Your task to perform on an android device: Open Youtube and go to "Your channel" Image 0: 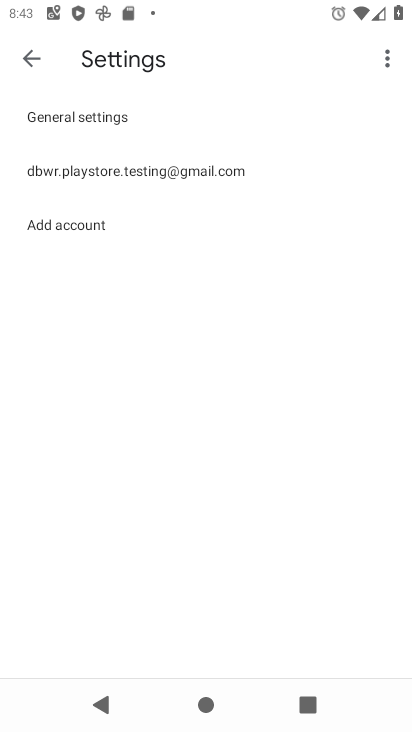
Step 0: press home button
Your task to perform on an android device: Open Youtube and go to "Your channel" Image 1: 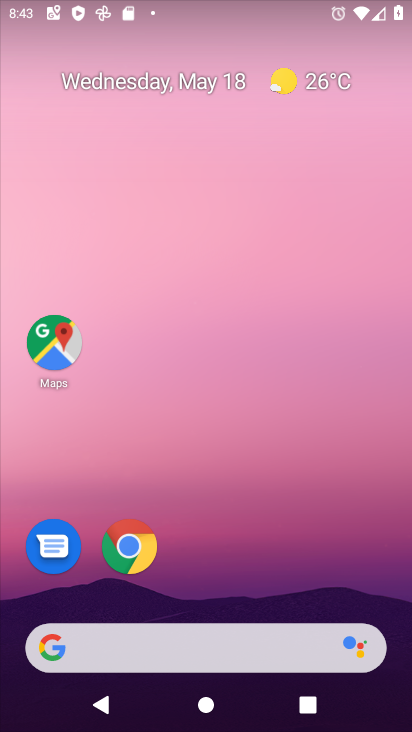
Step 1: drag from (395, 655) to (288, 93)
Your task to perform on an android device: Open Youtube and go to "Your channel" Image 2: 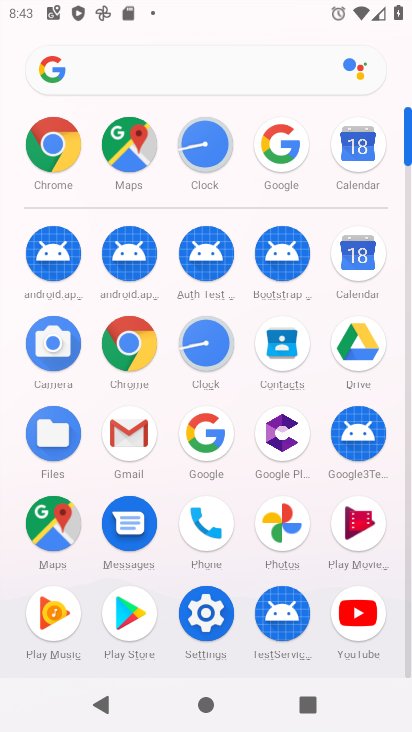
Step 2: click (348, 600)
Your task to perform on an android device: Open Youtube and go to "Your channel" Image 3: 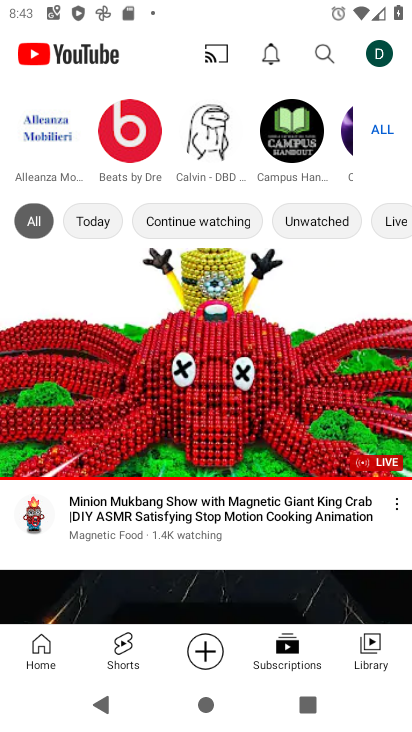
Step 3: click (380, 45)
Your task to perform on an android device: Open Youtube and go to "Your channel" Image 4: 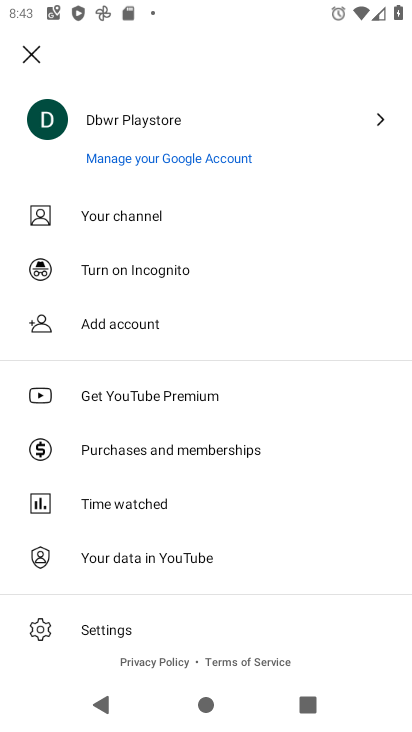
Step 4: click (165, 210)
Your task to perform on an android device: Open Youtube and go to "Your channel" Image 5: 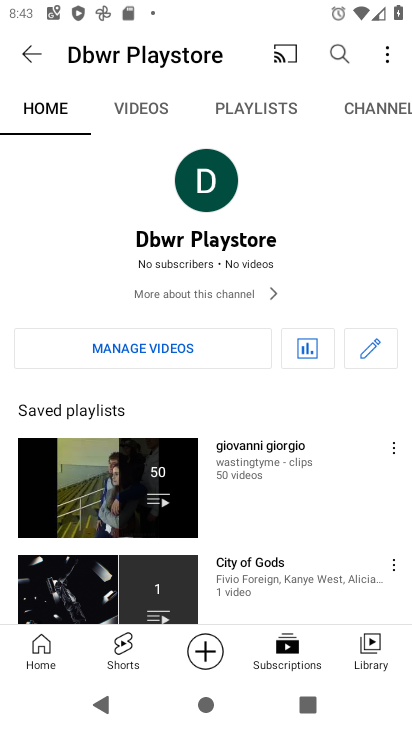
Step 5: task complete